Your task to perform on an android device: turn vacation reply on in the gmail app Image 0: 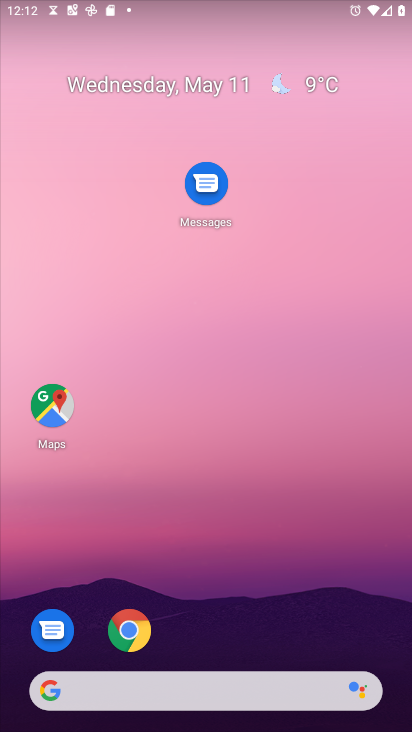
Step 0: drag from (197, 572) to (203, 4)
Your task to perform on an android device: turn vacation reply on in the gmail app Image 1: 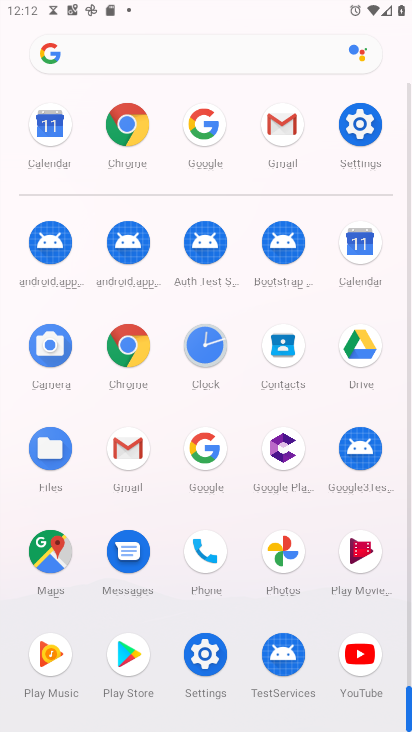
Step 1: click (280, 135)
Your task to perform on an android device: turn vacation reply on in the gmail app Image 2: 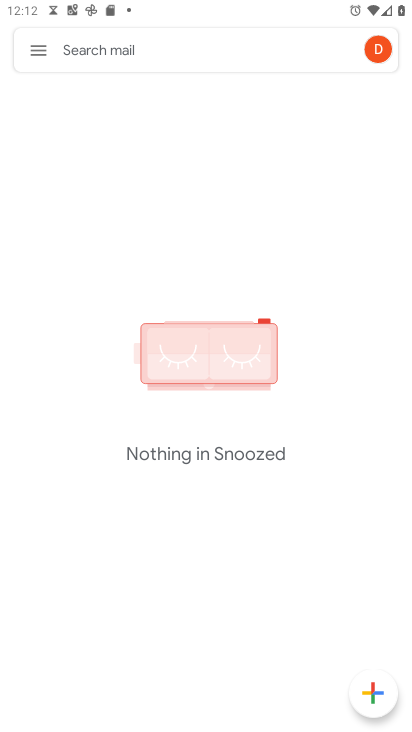
Step 2: click (42, 54)
Your task to perform on an android device: turn vacation reply on in the gmail app Image 3: 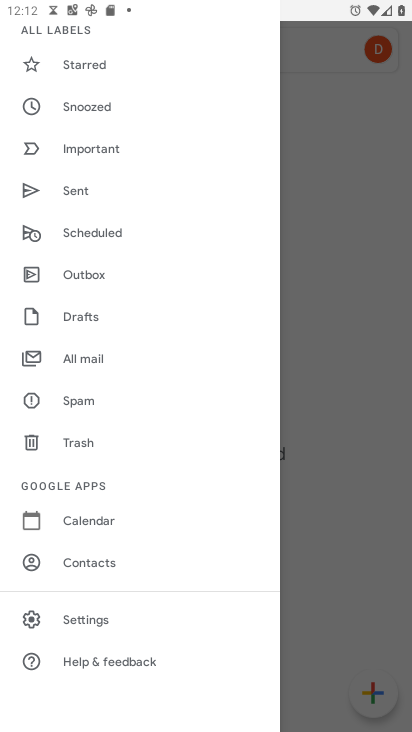
Step 3: click (71, 623)
Your task to perform on an android device: turn vacation reply on in the gmail app Image 4: 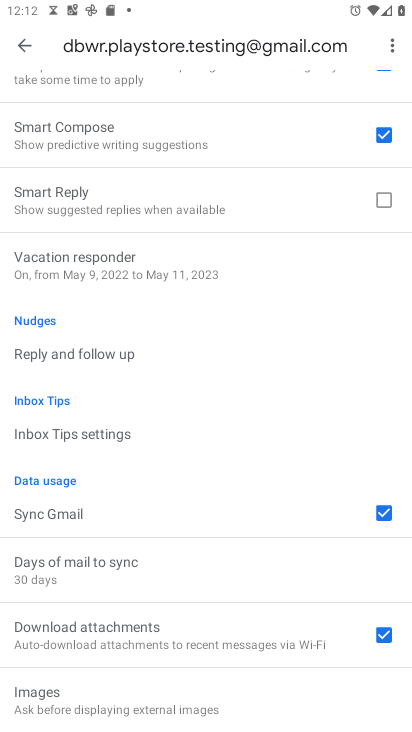
Step 4: drag from (105, 600) to (164, 162)
Your task to perform on an android device: turn vacation reply on in the gmail app Image 5: 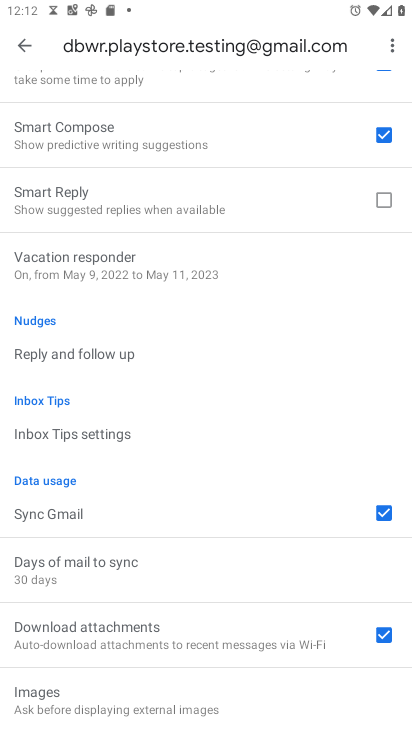
Step 5: click (108, 261)
Your task to perform on an android device: turn vacation reply on in the gmail app Image 6: 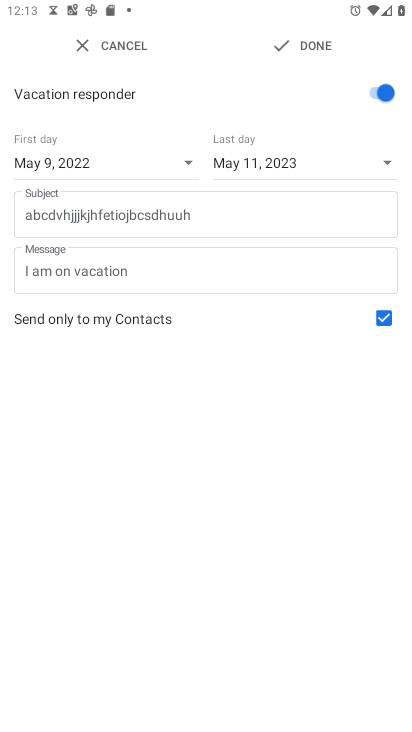
Step 6: task complete